Your task to perform on an android device: Open Android settings Image 0: 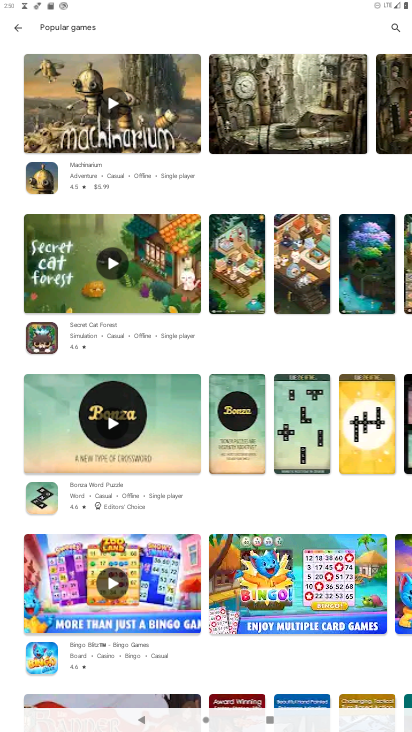
Step 0: press home button
Your task to perform on an android device: Open Android settings Image 1: 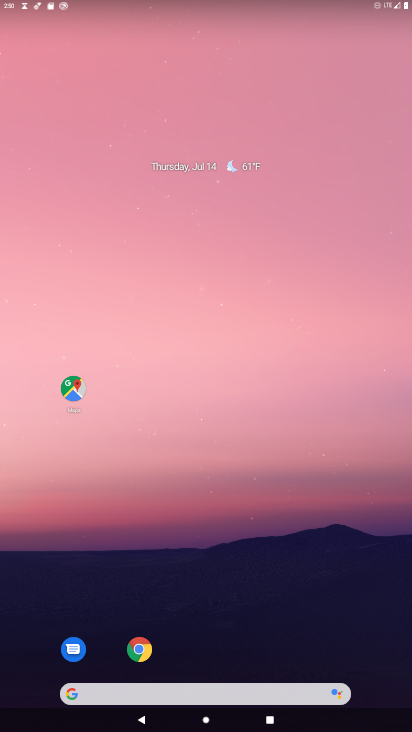
Step 1: drag from (237, 652) to (274, 54)
Your task to perform on an android device: Open Android settings Image 2: 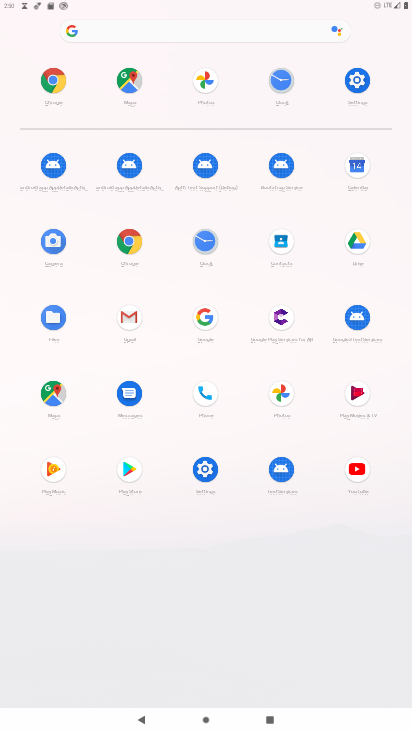
Step 2: click (366, 67)
Your task to perform on an android device: Open Android settings Image 3: 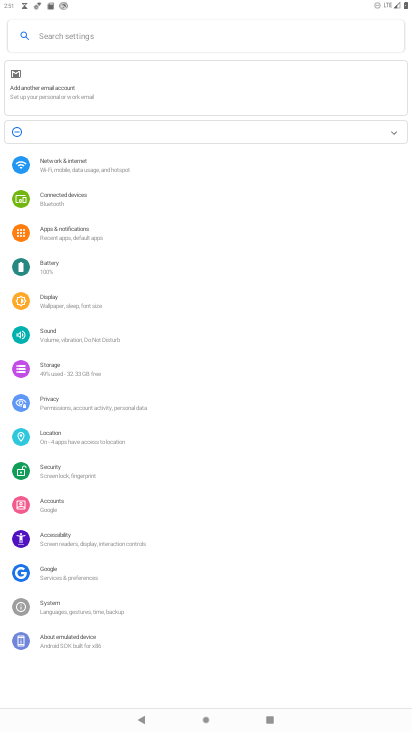
Step 3: click (68, 646)
Your task to perform on an android device: Open Android settings Image 4: 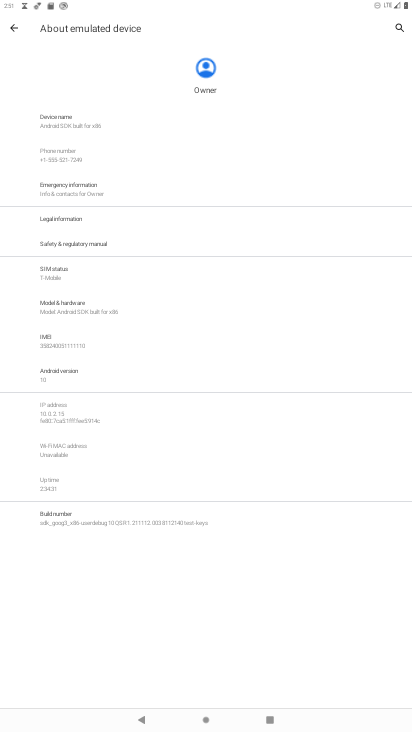
Step 4: task complete